Your task to perform on an android device: check battery use Image 0: 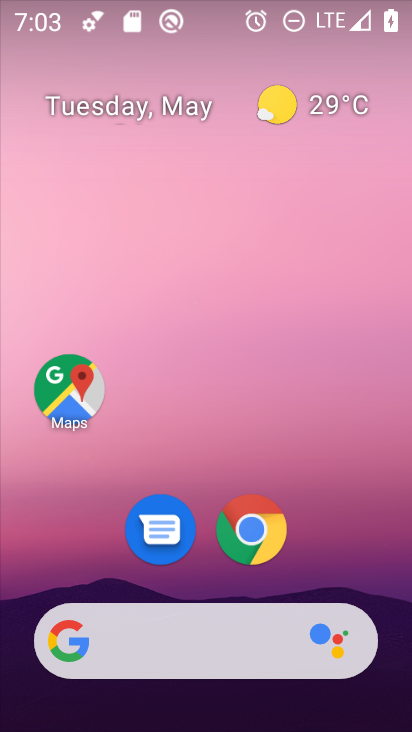
Step 0: drag from (392, 623) to (293, 130)
Your task to perform on an android device: check battery use Image 1: 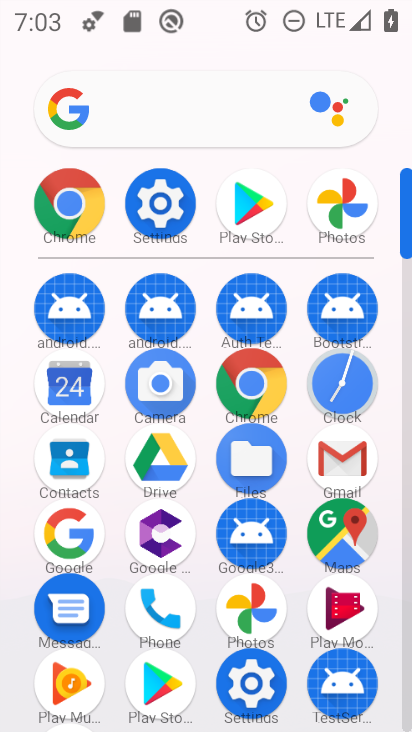
Step 1: click (146, 209)
Your task to perform on an android device: check battery use Image 2: 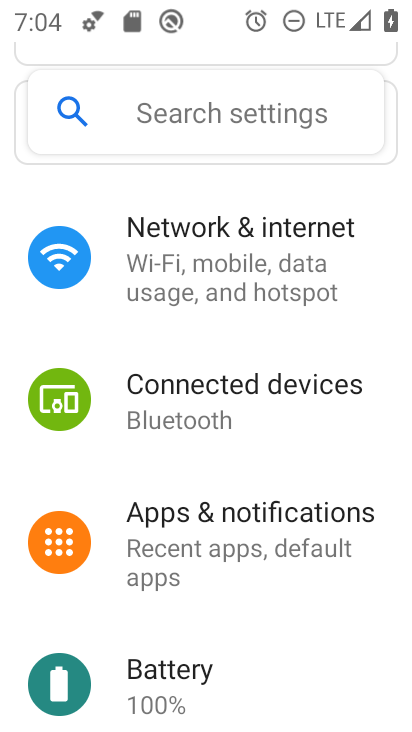
Step 2: click (180, 685)
Your task to perform on an android device: check battery use Image 3: 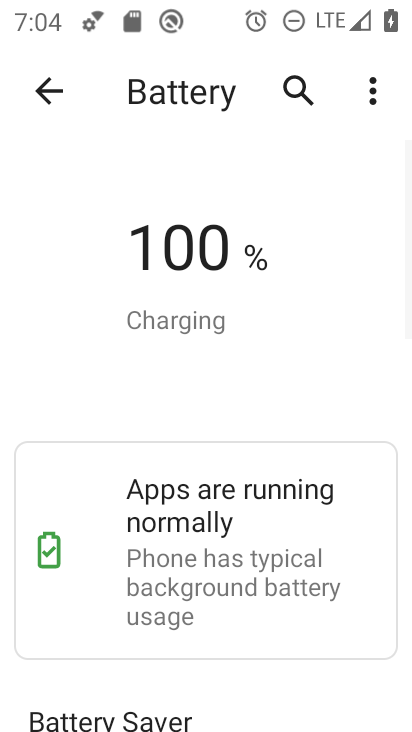
Step 3: click (373, 88)
Your task to perform on an android device: check battery use Image 4: 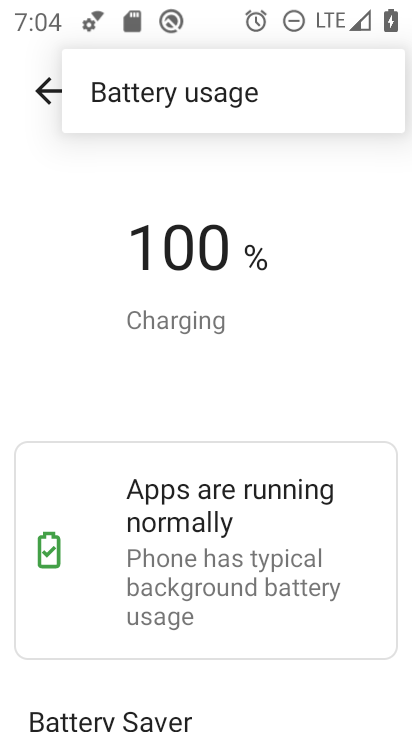
Step 4: click (262, 81)
Your task to perform on an android device: check battery use Image 5: 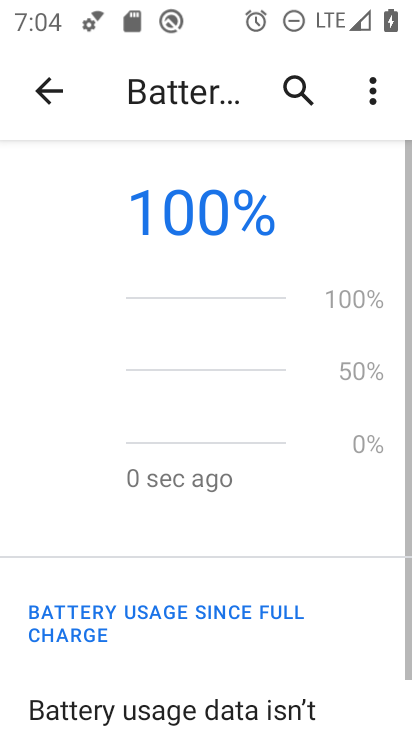
Step 5: task complete